Your task to perform on an android device: Search for vegetarian restaurants on Maps Image 0: 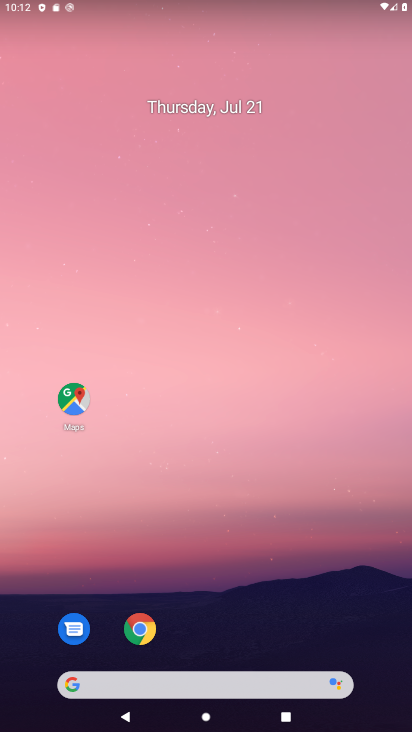
Step 0: click (82, 399)
Your task to perform on an android device: Search for vegetarian restaurants on Maps Image 1: 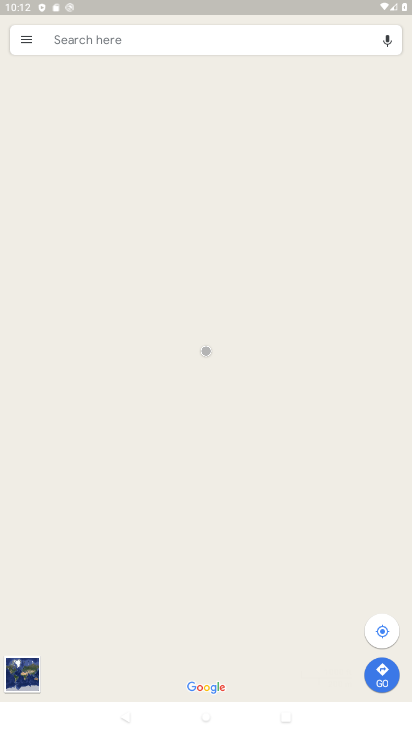
Step 1: click (125, 48)
Your task to perform on an android device: Search for vegetarian restaurants on Maps Image 2: 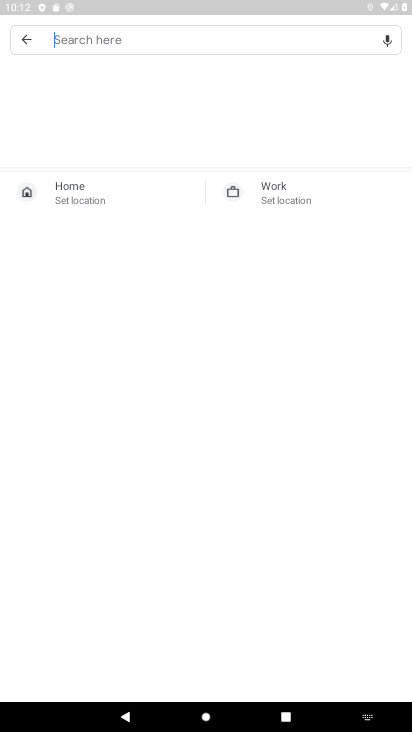
Step 2: type "vegetarian restaurants "
Your task to perform on an android device: Search for vegetarian restaurants on Maps Image 3: 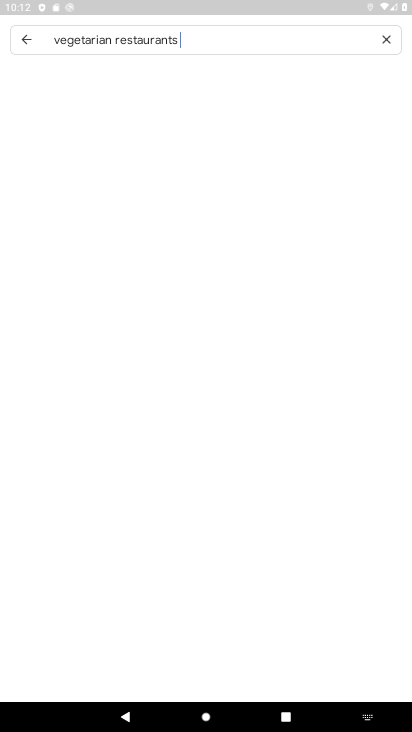
Step 3: type ""
Your task to perform on an android device: Search for vegetarian restaurants on Maps Image 4: 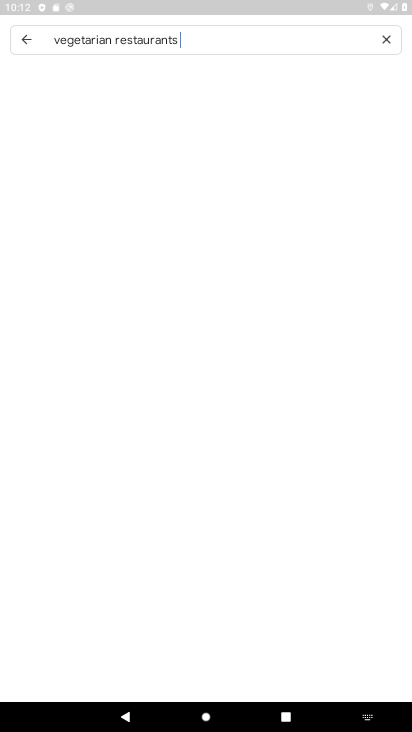
Step 4: press enter
Your task to perform on an android device: Search for vegetarian restaurants on Maps Image 5: 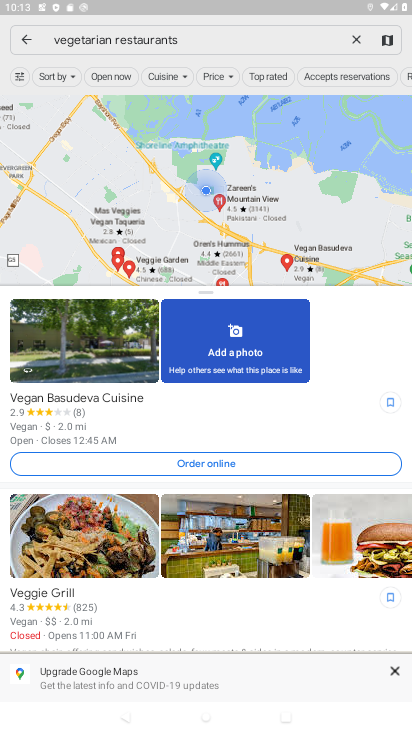
Step 5: task complete